Your task to perform on an android device: change notification settings in the gmail app Image 0: 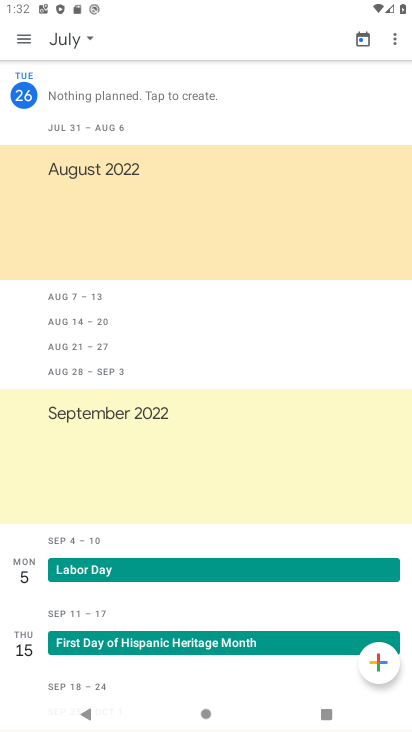
Step 0: press home button
Your task to perform on an android device: change notification settings in the gmail app Image 1: 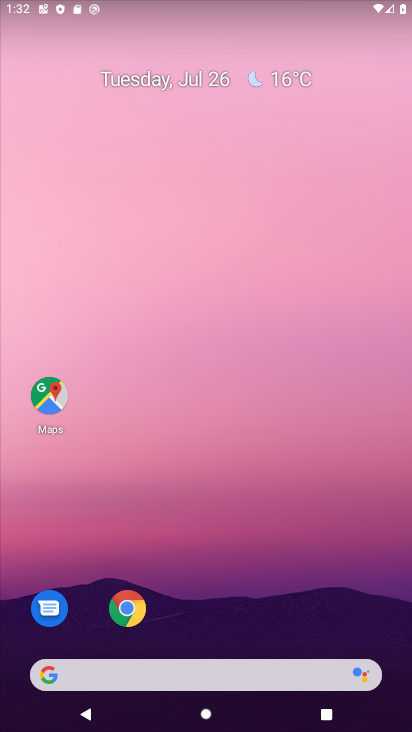
Step 1: drag from (220, 604) to (164, 57)
Your task to perform on an android device: change notification settings in the gmail app Image 2: 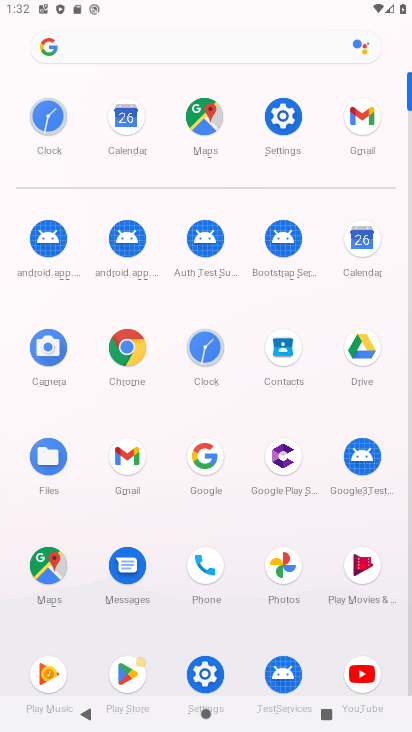
Step 2: click (214, 669)
Your task to perform on an android device: change notification settings in the gmail app Image 3: 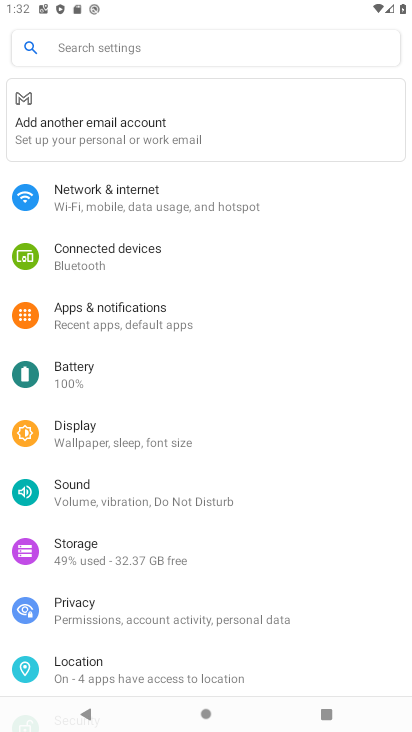
Step 3: click (89, 338)
Your task to perform on an android device: change notification settings in the gmail app Image 4: 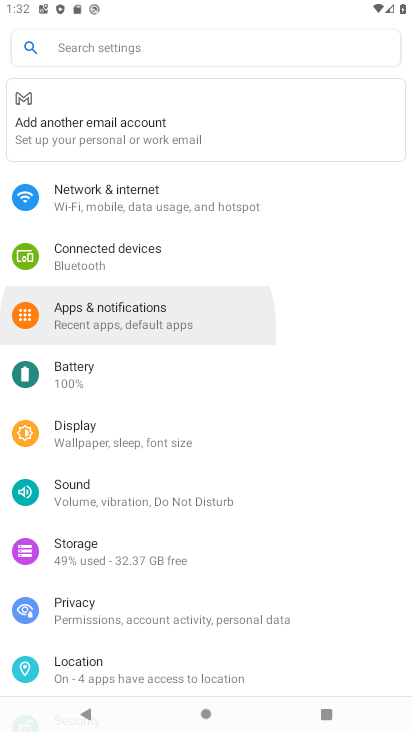
Step 4: click (89, 338)
Your task to perform on an android device: change notification settings in the gmail app Image 5: 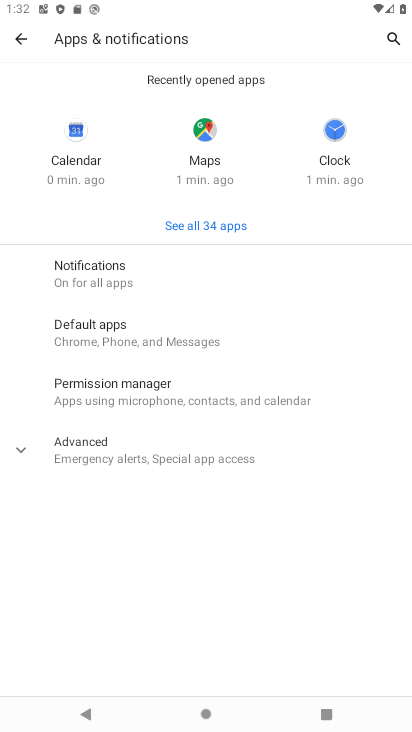
Step 5: task complete